Your task to perform on an android device: turn on bluetooth scan Image 0: 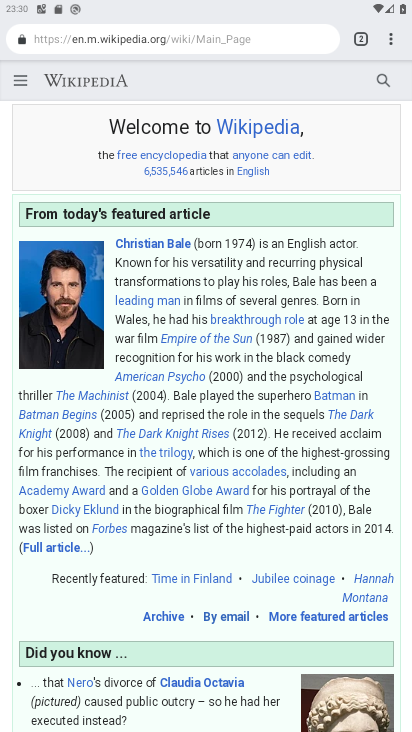
Step 0: press home button
Your task to perform on an android device: turn on bluetooth scan Image 1: 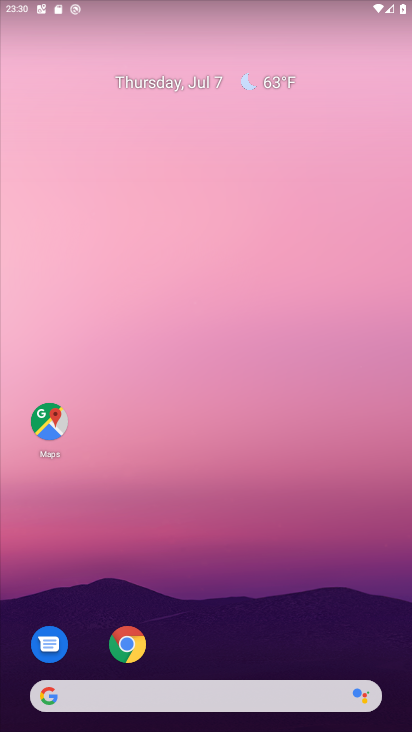
Step 1: drag from (231, 723) to (231, 153)
Your task to perform on an android device: turn on bluetooth scan Image 2: 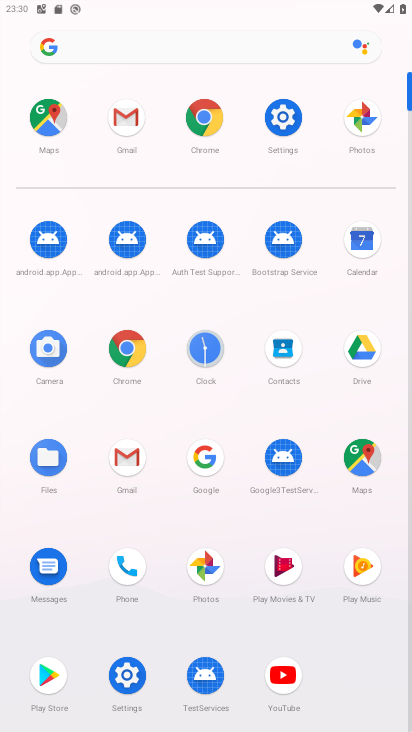
Step 2: click (286, 120)
Your task to perform on an android device: turn on bluetooth scan Image 3: 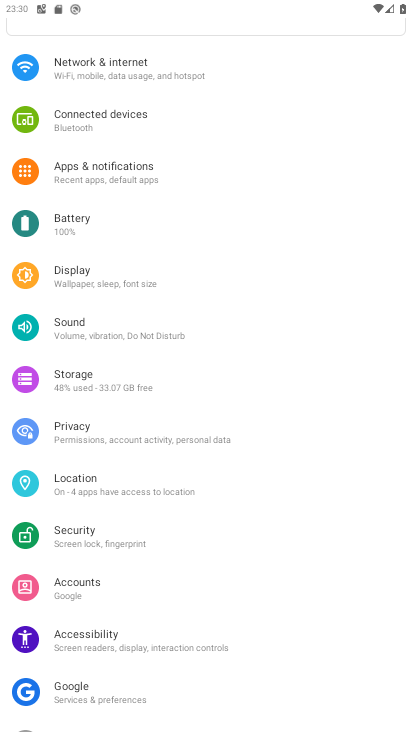
Step 3: click (81, 482)
Your task to perform on an android device: turn on bluetooth scan Image 4: 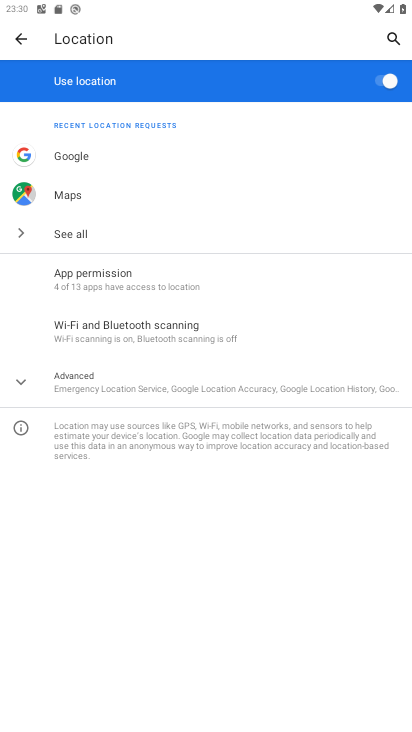
Step 4: click (134, 323)
Your task to perform on an android device: turn on bluetooth scan Image 5: 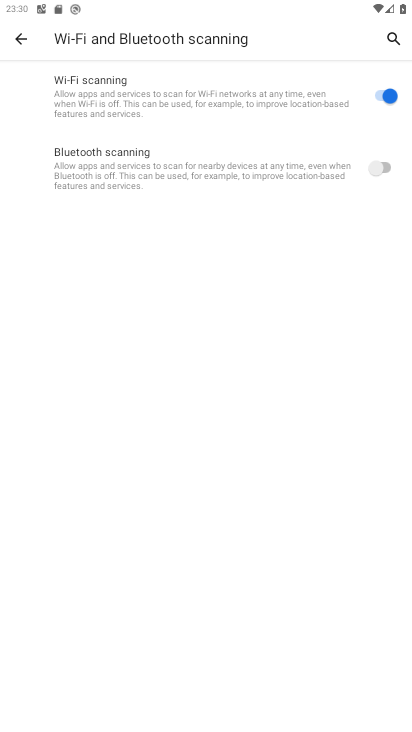
Step 5: click (390, 166)
Your task to perform on an android device: turn on bluetooth scan Image 6: 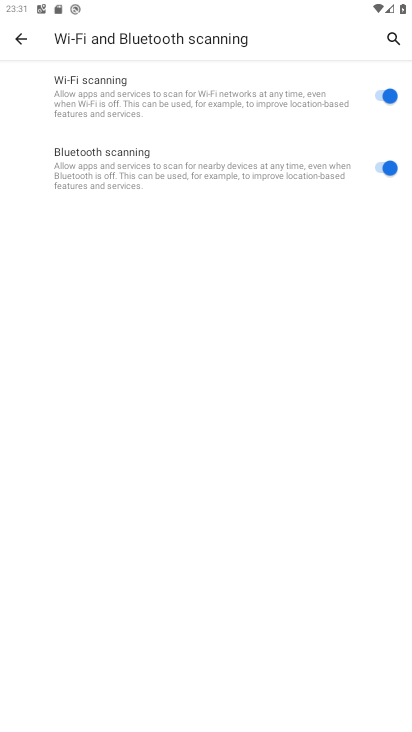
Step 6: task complete